Your task to perform on an android device: Open eBay Image 0: 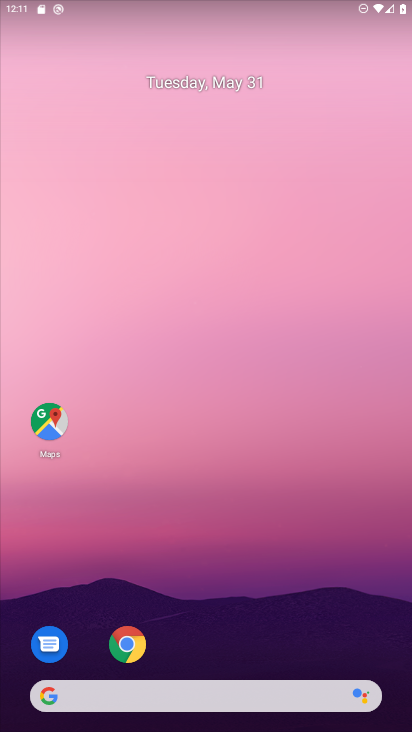
Step 0: drag from (199, 639) to (298, 88)
Your task to perform on an android device: Open eBay Image 1: 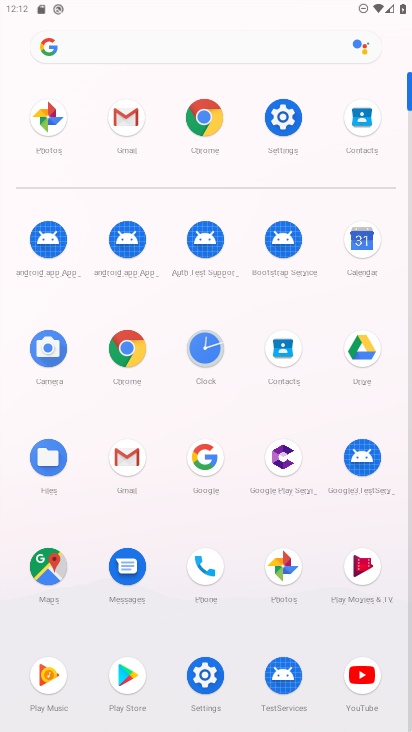
Step 1: click (187, 39)
Your task to perform on an android device: Open eBay Image 2: 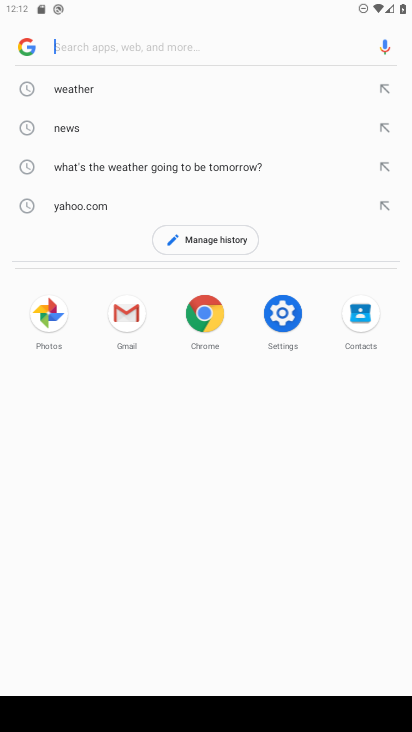
Step 2: type "eBay"
Your task to perform on an android device: Open eBay Image 3: 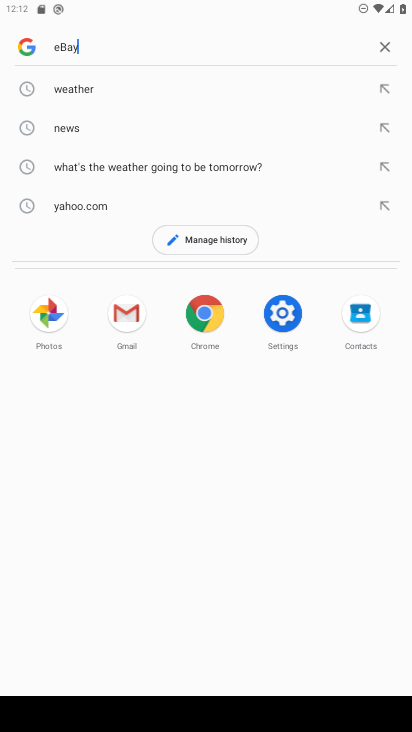
Step 3: type ""
Your task to perform on an android device: Open eBay Image 4: 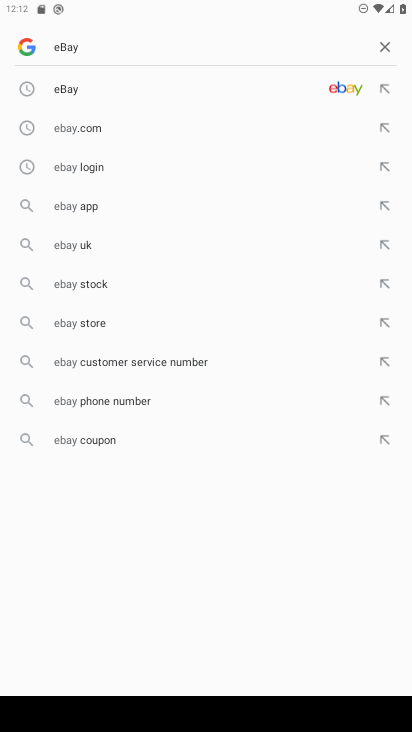
Step 4: click (59, 86)
Your task to perform on an android device: Open eBay Image 5: 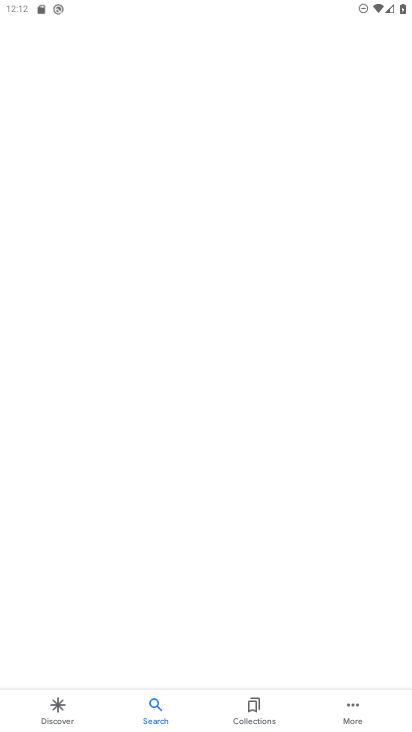
Step 5: task complete